Your task to perform on an android device: toggle pop-ups in chrome Image 0: 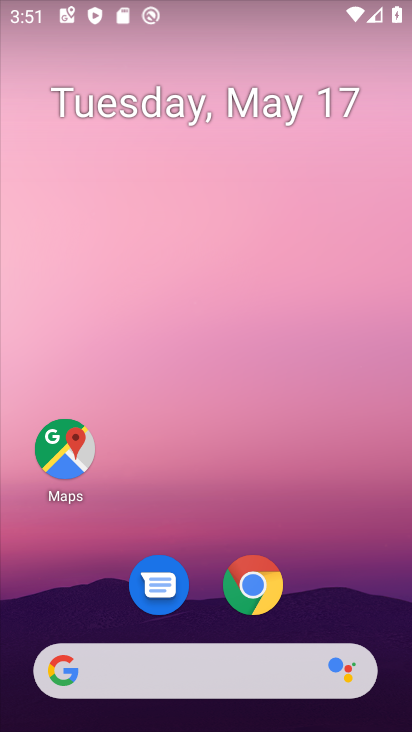
Step 0: click (261, 582)
Your task to perform on an android device: toggle pop-ups in chrome Image 1: 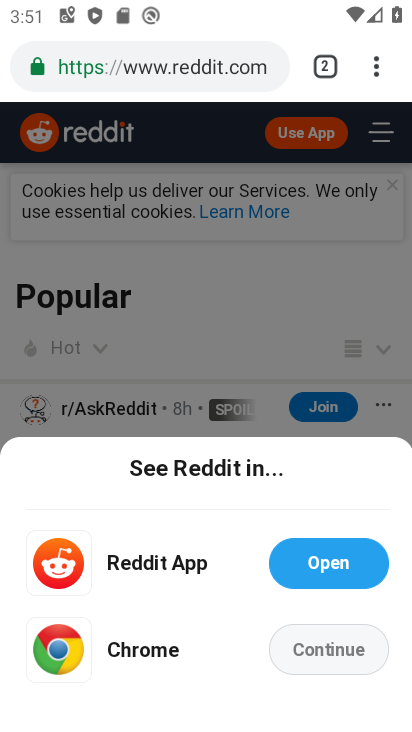
Step 1: click (372, 64)
Your task to perform on an android device: toggle pop-ups in chrome Image 2: 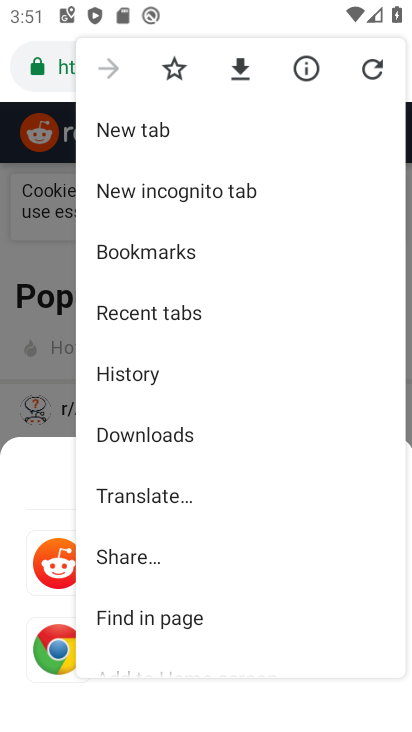
Step 2: drag from (268, 500) to (266, 283)
Your task to perform on an android device: toggle pop-ups in chrome Image 3: 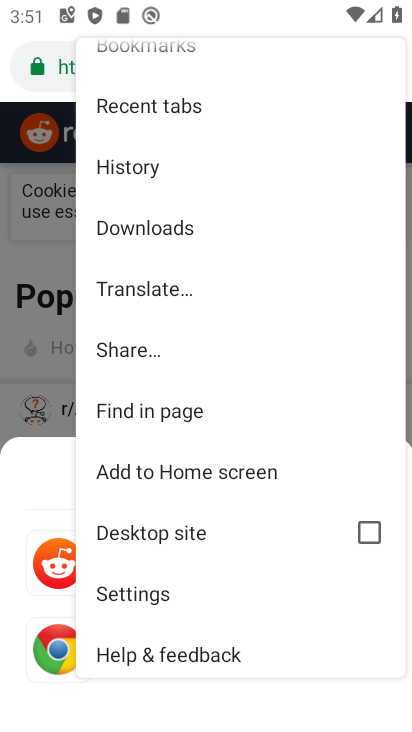
Step 3: click (183, 596)
Your task to perform on an android device: toggle pop-ups in chrome Image 4: 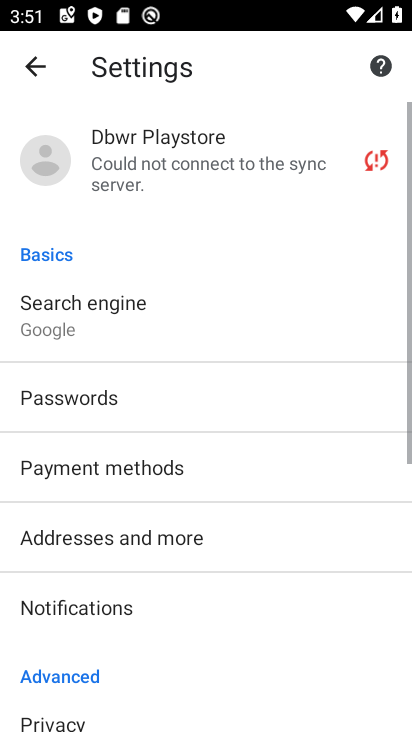
Step 4: drag from (193, 607) to (235, 285)
Your task to perform on an android device: toggle pop-ups in chrome Image 5: 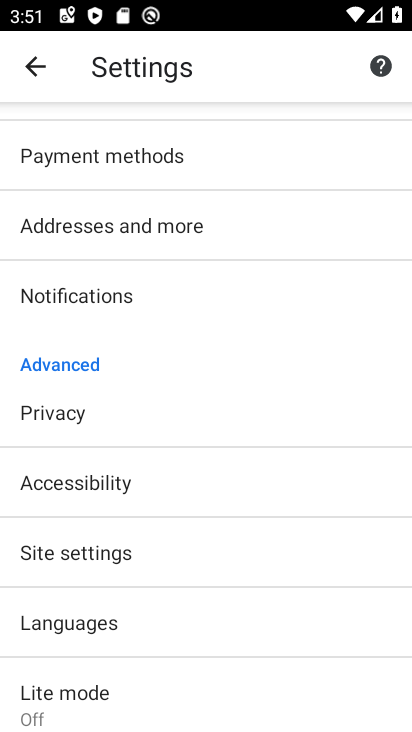
Step 5: click (166, 540)
Your task to perform on an android device: toggle pop-ups in chrome Image 6: 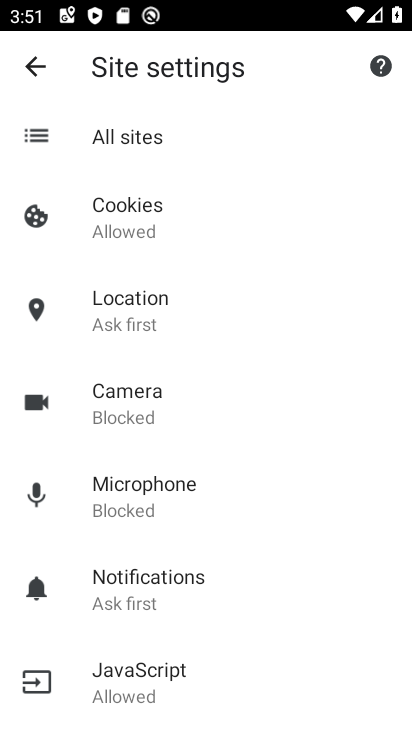
Step 6: drag from (252, 508) to (257, 308)
Your task to perform on an android device: toggle pop-ups in chrome Image 7: 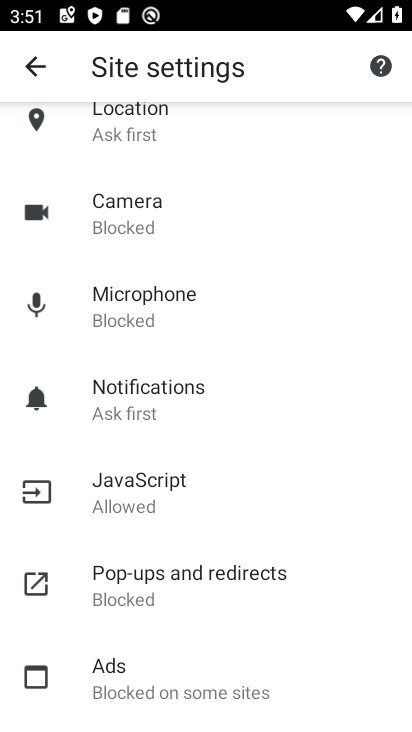
Step 7: click (219, 578)
Your task to perform on an android device: toggle pop-ups in chrome Image 8: 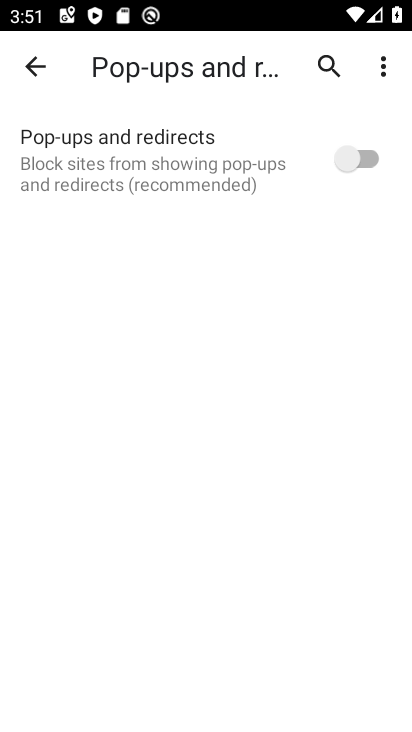
Step 8: click (367, 149)
Your task to perform on an android device: toggle pop-ups in chrome Image 9: 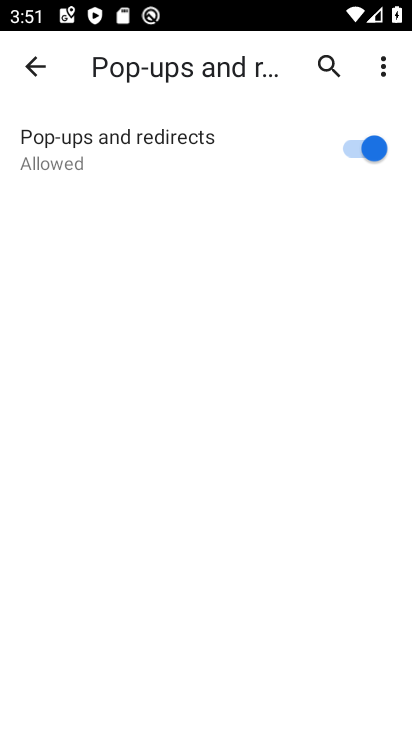
Step 9: task complete